Your task to perform on an android device: allow notifications from all sites in the chrome app Image 0: 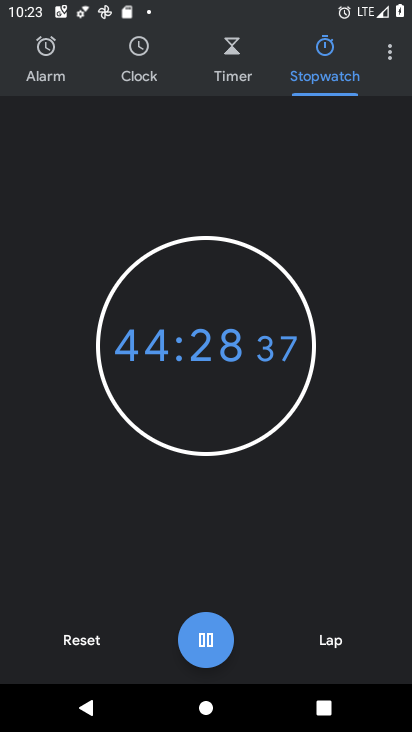
Step 0: press home button
Your task to perform on an android device: allow notifications from all sites in the chrome app Image 1: 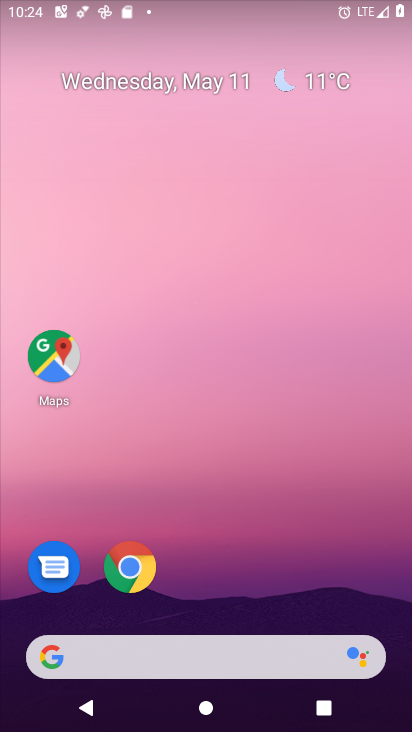
Step 1: click (128, 568)
Your task to perform on an android device: allow notifications from all sites in the chrome app Image 2: 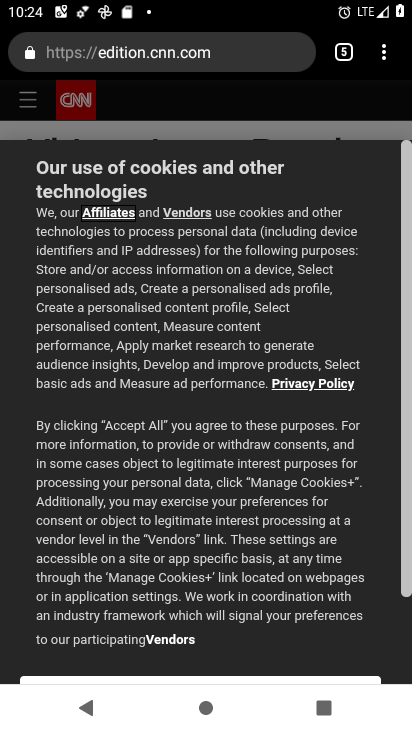
Step 2: click (387, 51)
Your task to perform on an android device: allow notifications from all sites in the chrome app Image 3: 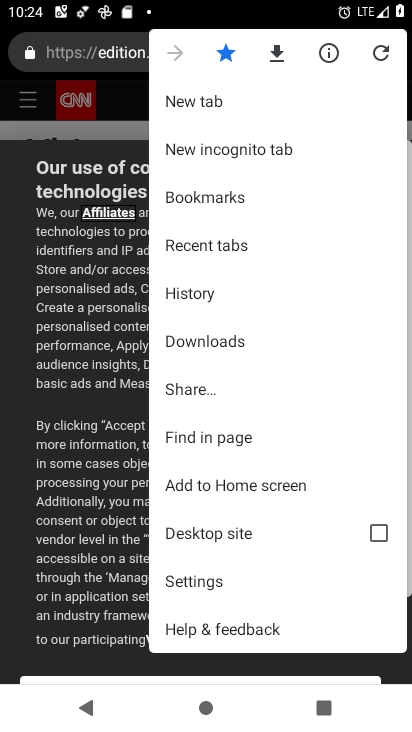
Step 3: click (215, 569)
Your task to perform on an android device: allow notifications from all sites in the chrome app Image 4: 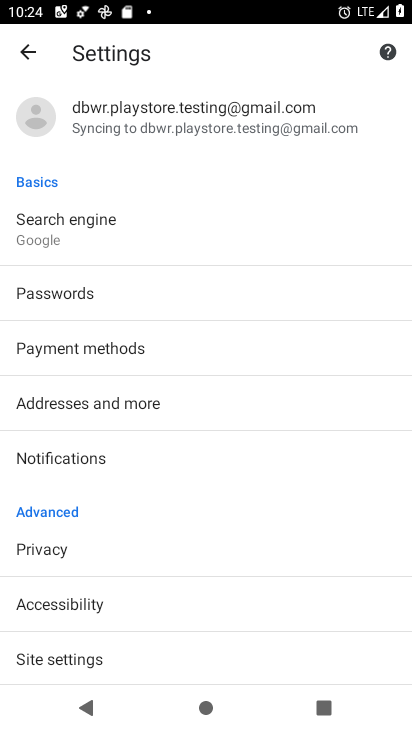
Step 4: click (98, 649)
Your task to perform on an android device: allow notifications from all sites in the chrome app Image 5: 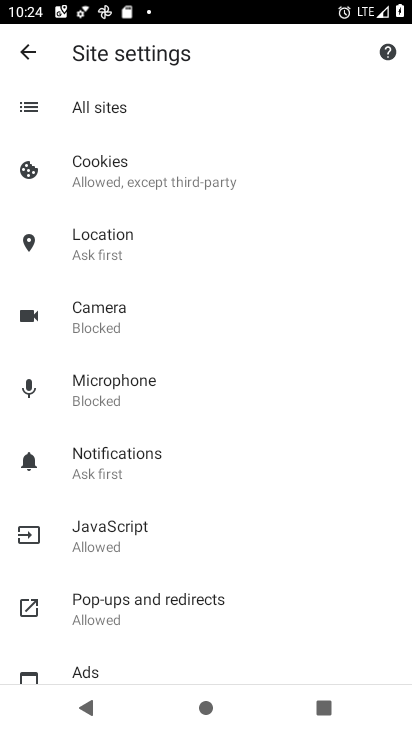
Step 5: click (146, 471)
Your task to perform on an android device: allow notifications from all sites in the chrome app Image 6: 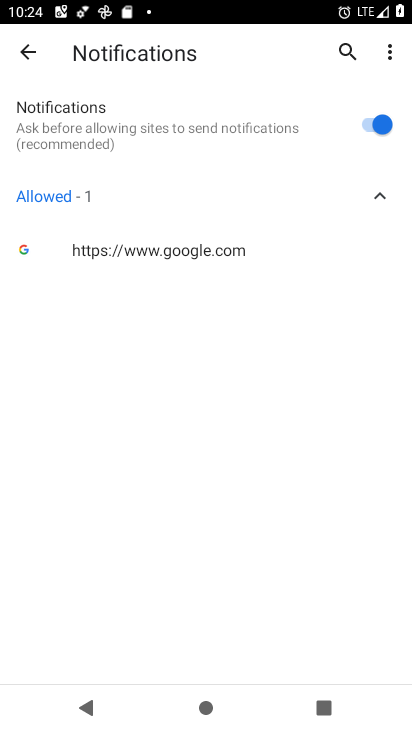
Step 6: task complete